Your task to perform on an android device: Go to settings Image 0: 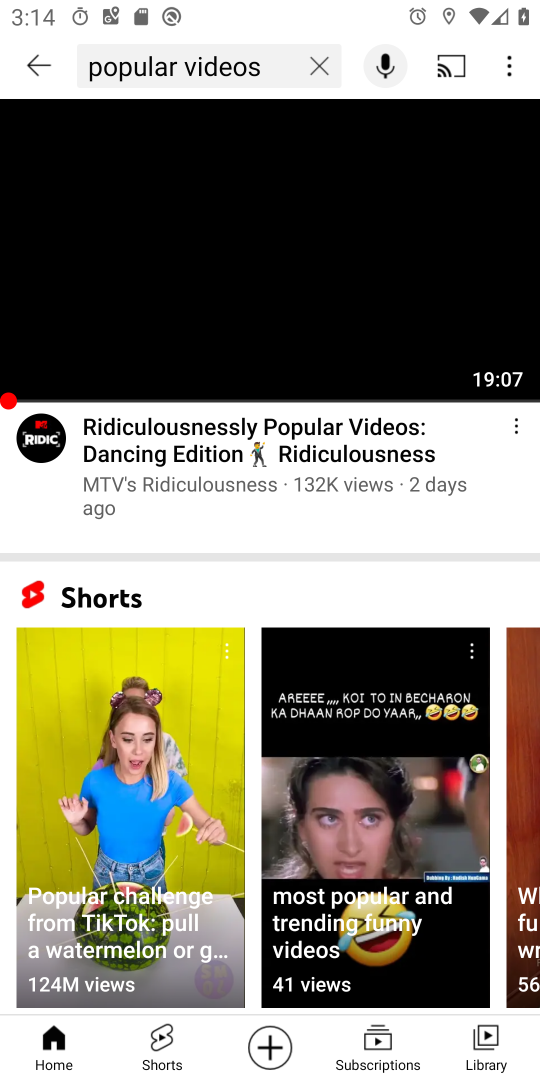
Step 0: press back button
Your task to perform on an android device: Go to settings Image 1: 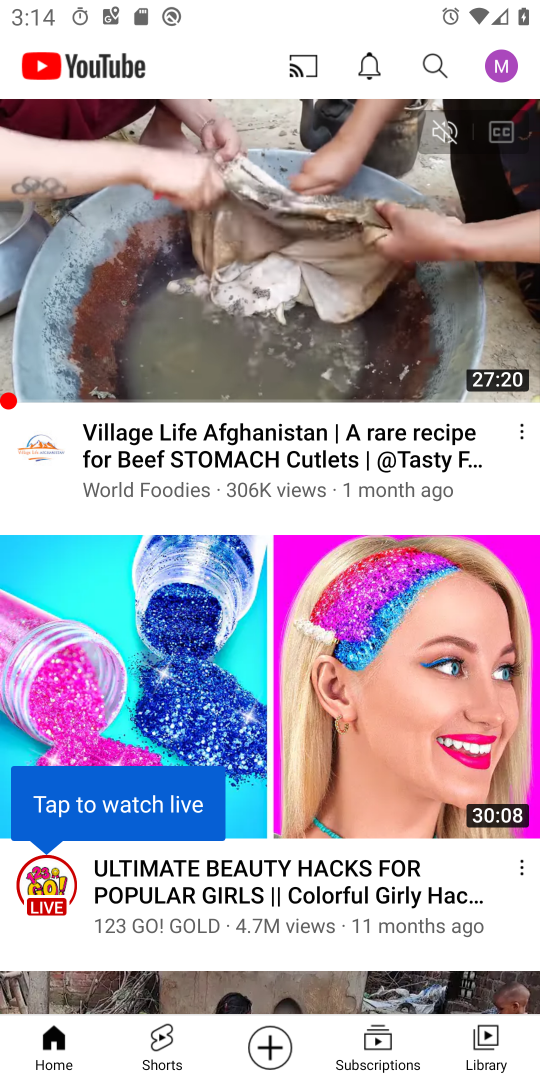
Step 1: press back button
Your task to perform on an android device: Go to settings Image 2: 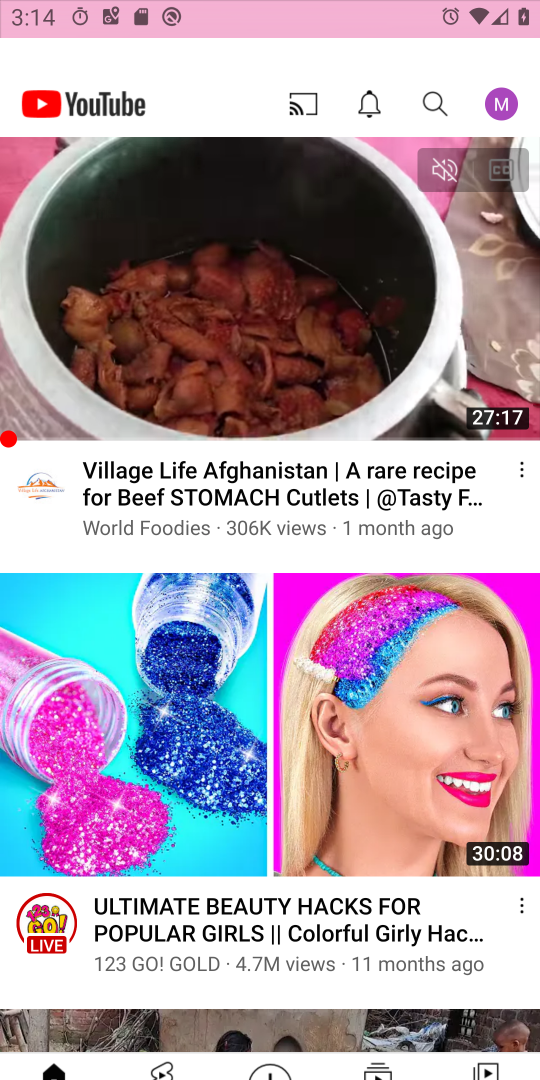
Step 2: press back button
Your task to perform on an android device: Go to settings Image 3: 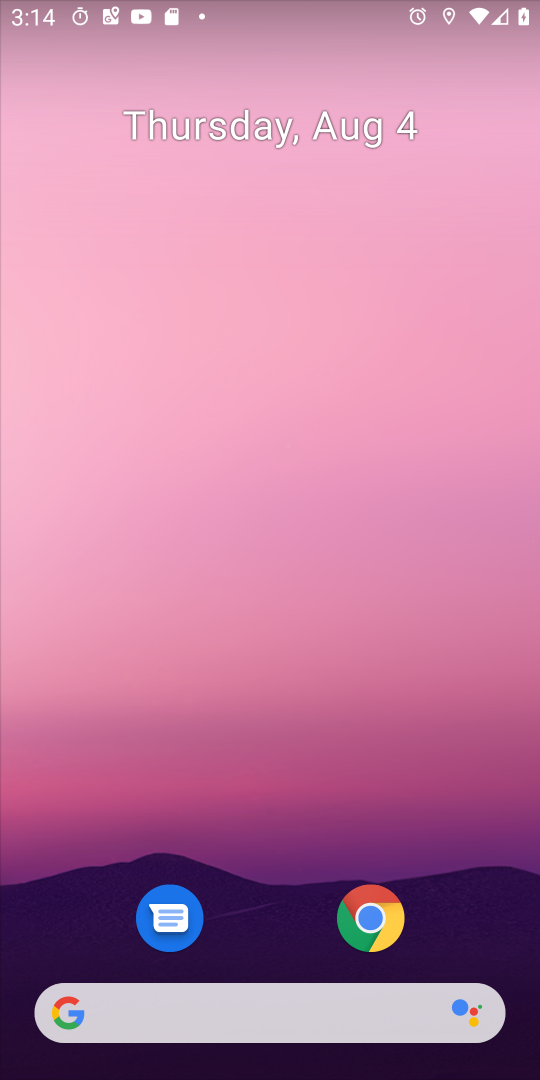
Step 3: drag from (294, 890) to (283, 260)
Your task to perform on an android device: Go to settings Image 4: 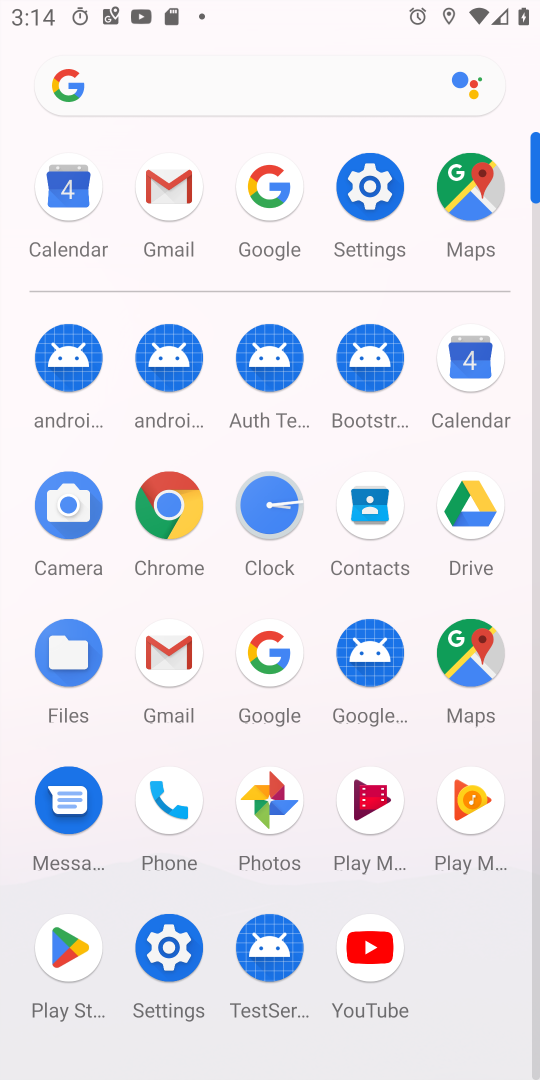
Step 4: click (351, 175)
Your task to perform on an android device: Go to settings Image 5: 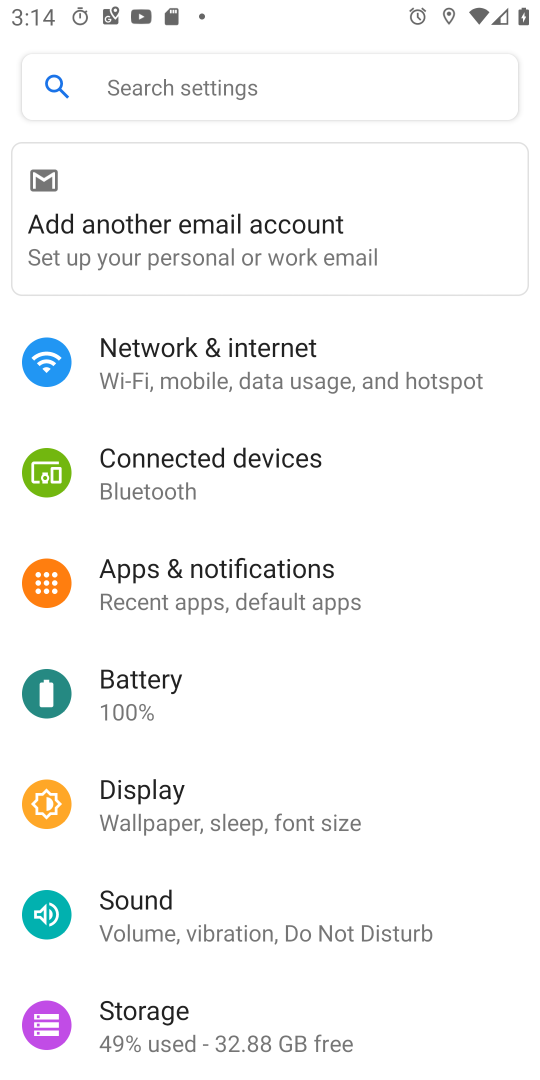
Step 5: task complete